Your task to perform on an android device: turn off data saver in the chrome app Image 0: 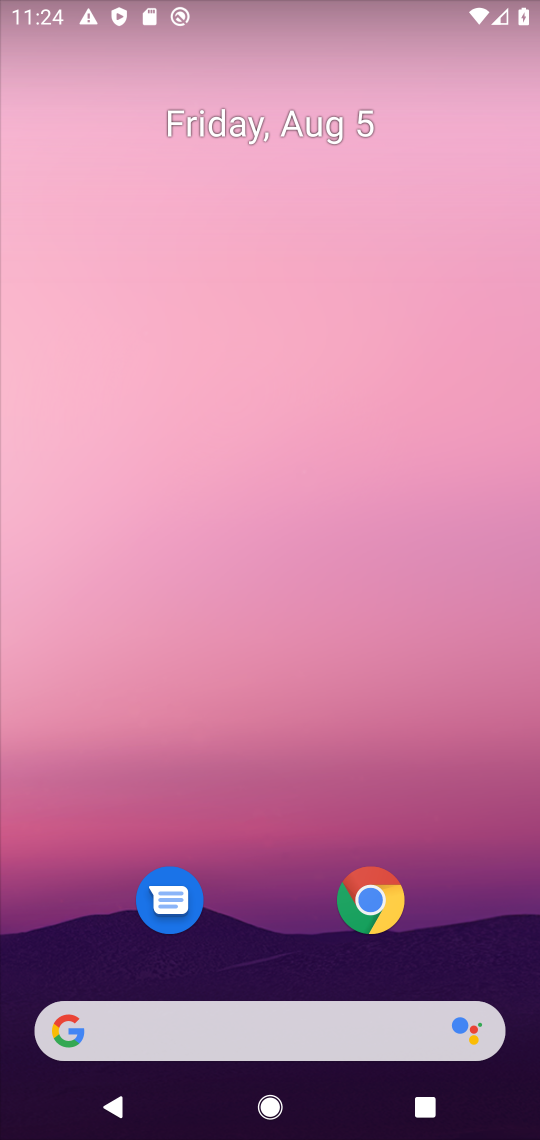
Step 0: click (376, 904)
Your task to perform on an android device: turn off data saver in the chrome app Image 1: 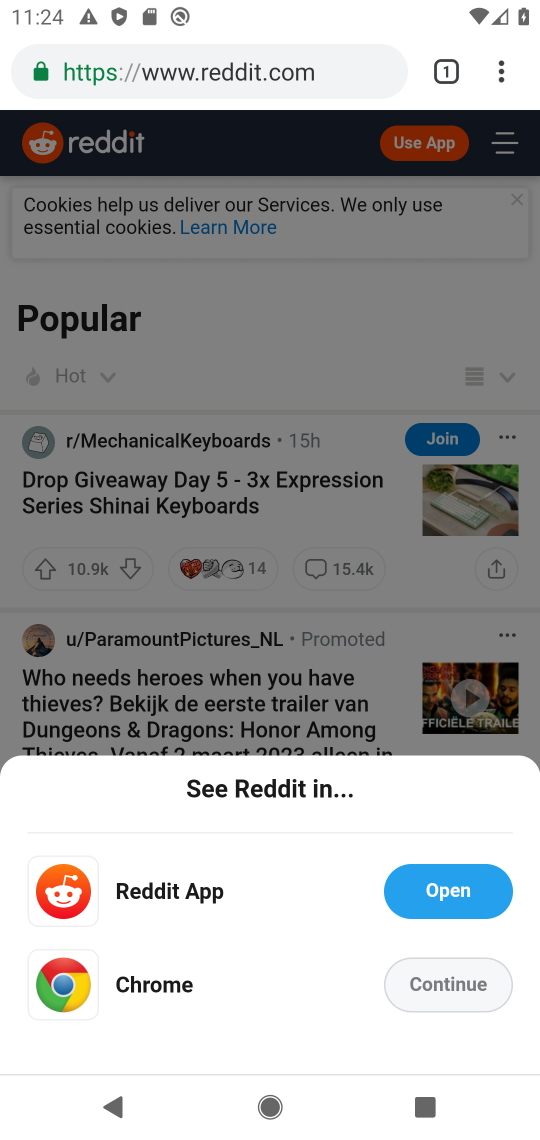
Step 1: drag from (503, 76) to (245, 870)
Your task to perform on an android device: turn off data saver in the chrome app Image 2: 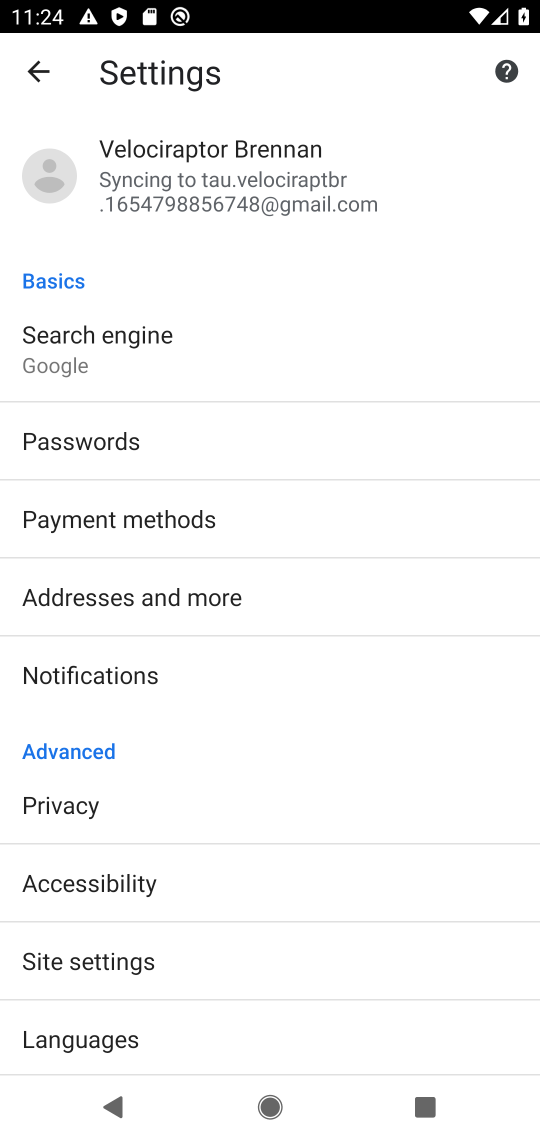
Step 2: drag from (101, 999) to (96, 578)
Your task to perform on an android device: turn off data saver in the chrome app Image 3: 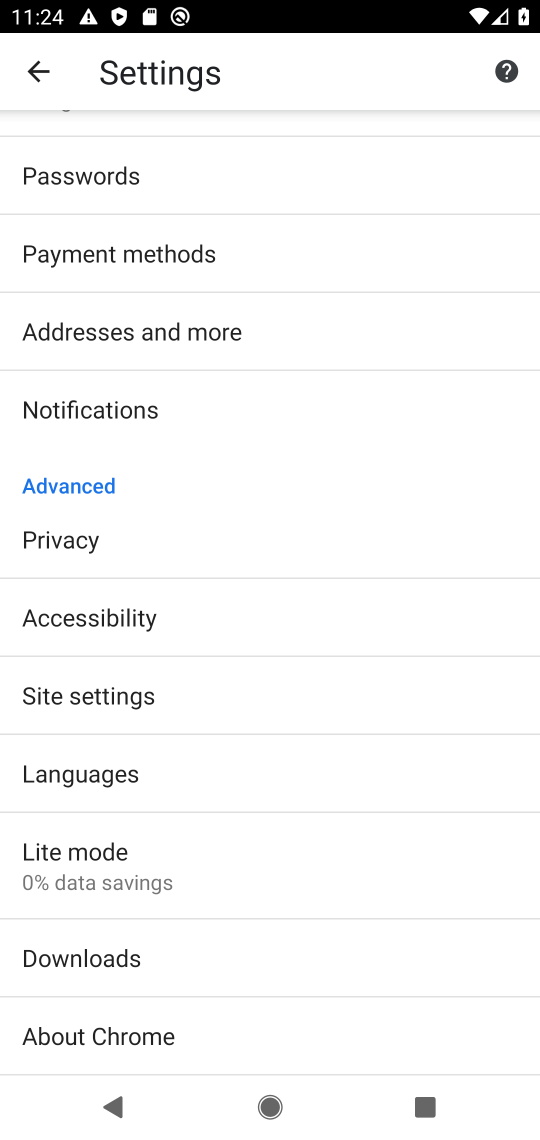
Step 3: click (127, 868)
Your task to perform on an android device: turn off data saver in the chrome app Image 4: 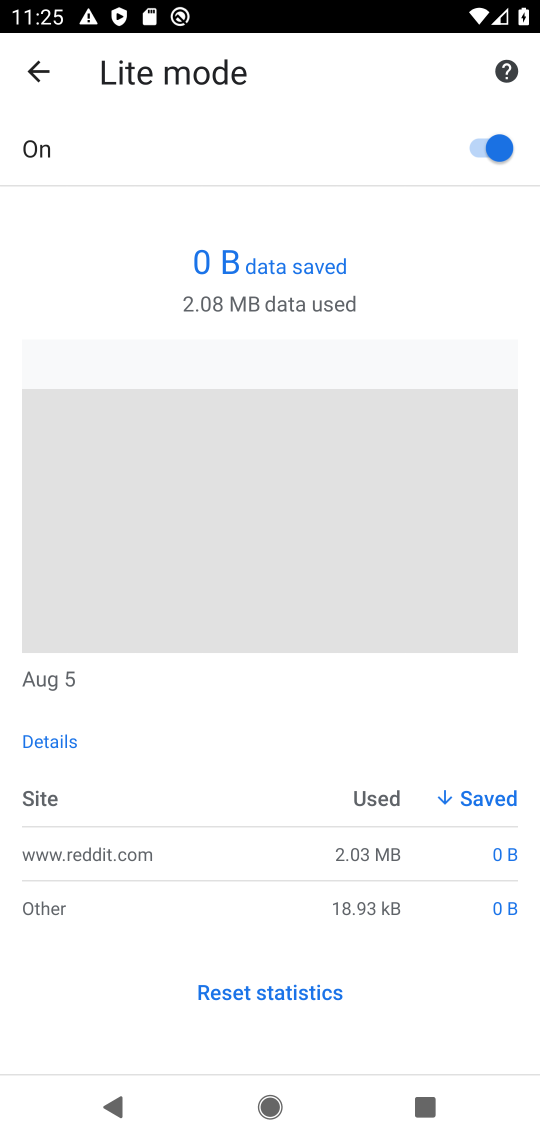
Step 4: click (496, 135)
Your task to perform on an android device: turn off data saver in the chrome app Image 5: 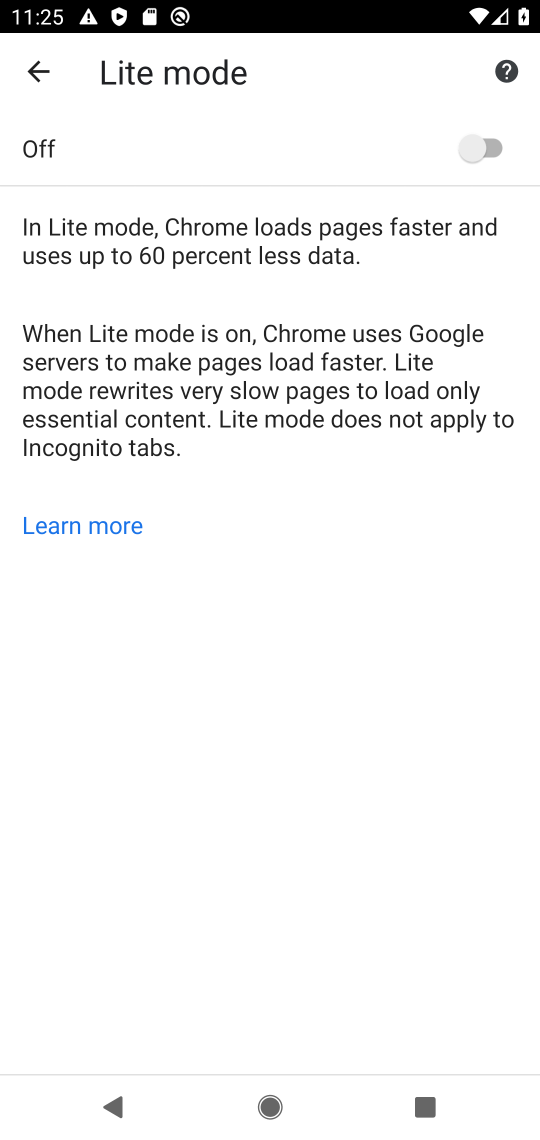
Step 5: task complete